Your task to perform on an android device: change text size in settings app Image 0: 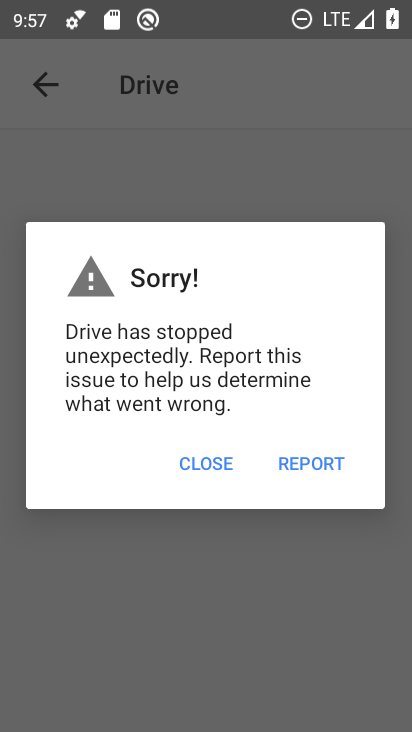
Step 0: press home button
Your task to perform on an android device: change text size in settings app Image 1: 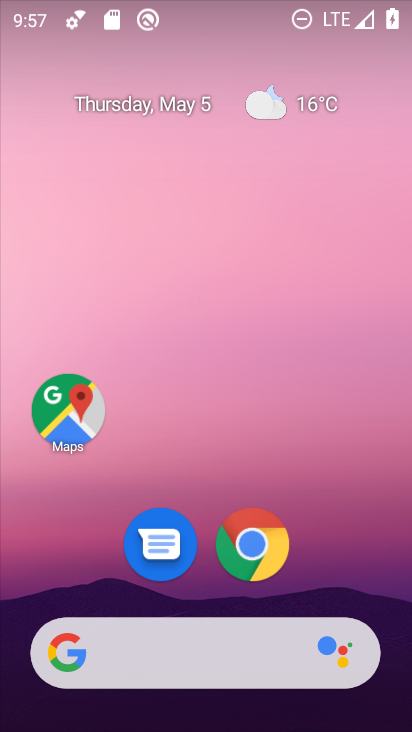
Step 1: drag from (386, 627) to (328, 119)
Your task to perform on an android device: change text size in settings app Image 2: 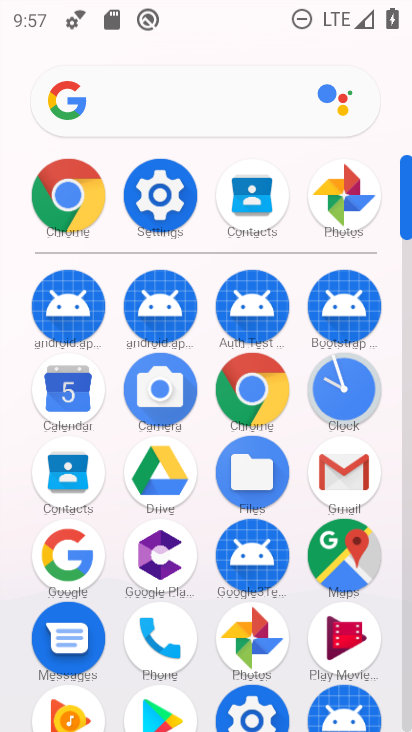
Step 2: click (170, 199)
Your task to perform on an android device: change text size in settings app Image 3: 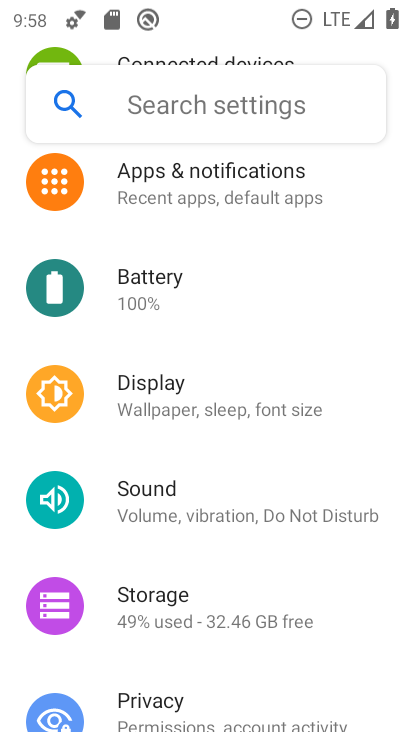
Step 3: click (226, 412)
Your task to perform on an android device: change text size in settings app Image 4: 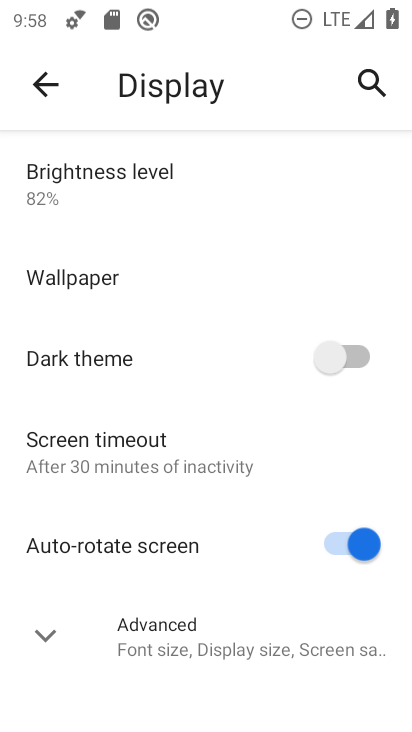
Step 4: click (113, 636)
Your task to perform on an android device: change text size in settings app Image 5: 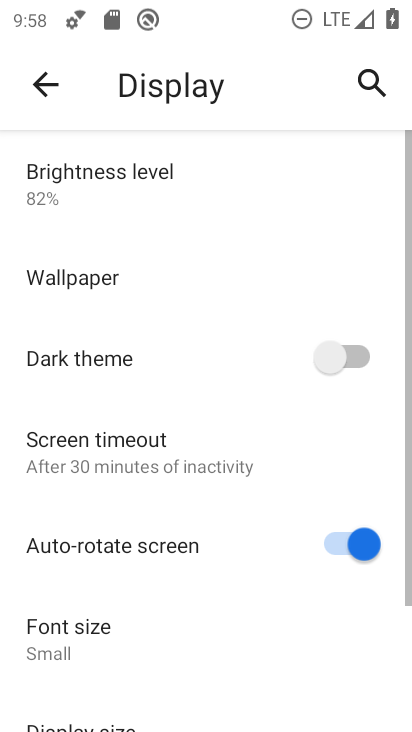
Step 5: drag from (112, 637) to (180, 439)
Your task to perform on an android device: change text size in settings app Image 6: 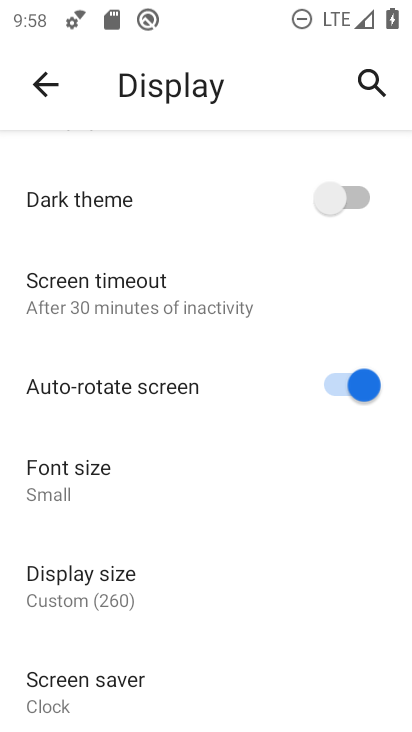
Step 6: click (180, 581)
Your task to perform on an android device: change text size in settings app Image 7: 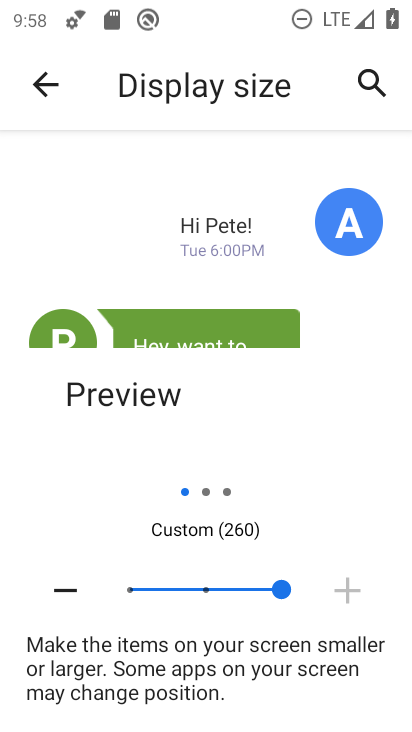
Step 7: click (204, 589)
Your task to perform on an android device: change text size in settings app Image 8: 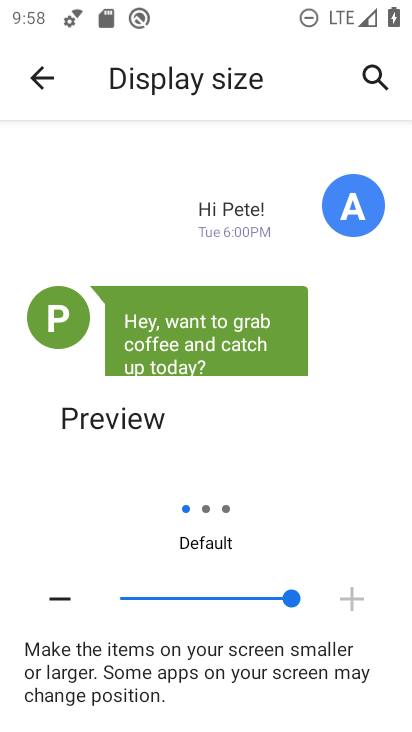
Step 8: task complete